Your task to perform on an android device: Find coffee shops on Maps Image 0: 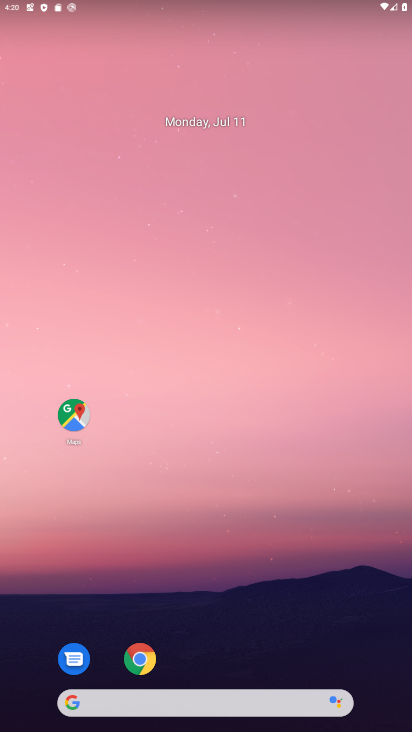
Step 0: click (72, 409)
Your task to perform on an android device: Find coffee shops on Maps Image 1: 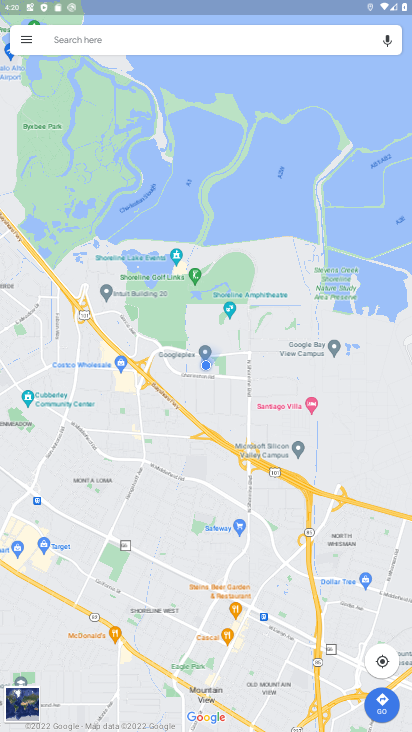
Step 1: click (251, 45)
Your task to perform on an android device: Find coffee shops on Maps Image 2: 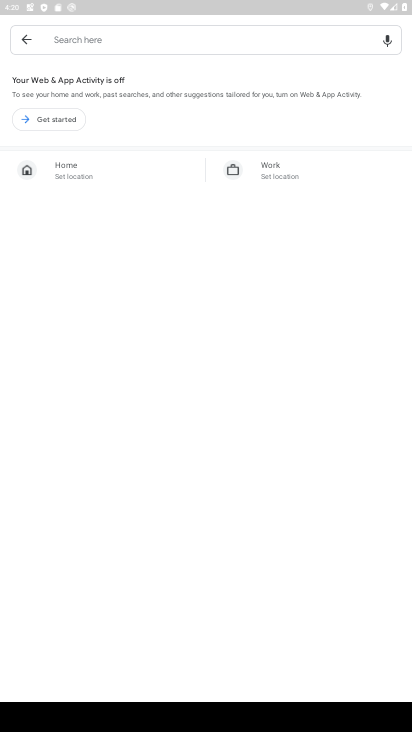
Step 2: type "coffee shops"
Your task to perform on an android device: Find coffee shops on Maps Image 3: 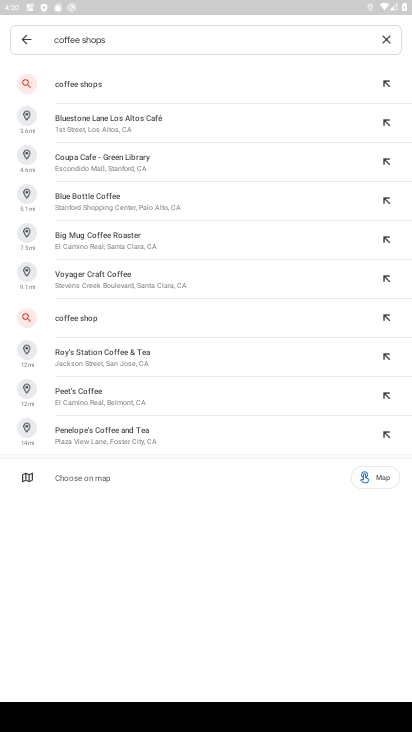
Step 3: click (81, 84)
Your task to perform on an android device: Find coffee shops on Maps Image 4: 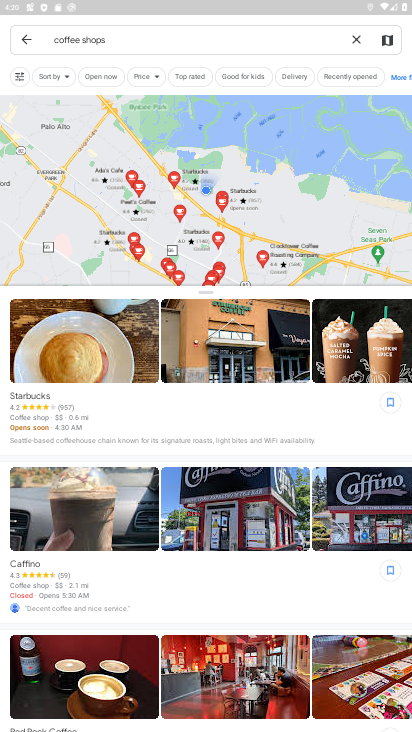
Step 4: task complete